Your task to perform on an android device: Look up the new steph curry shoes Image 0: 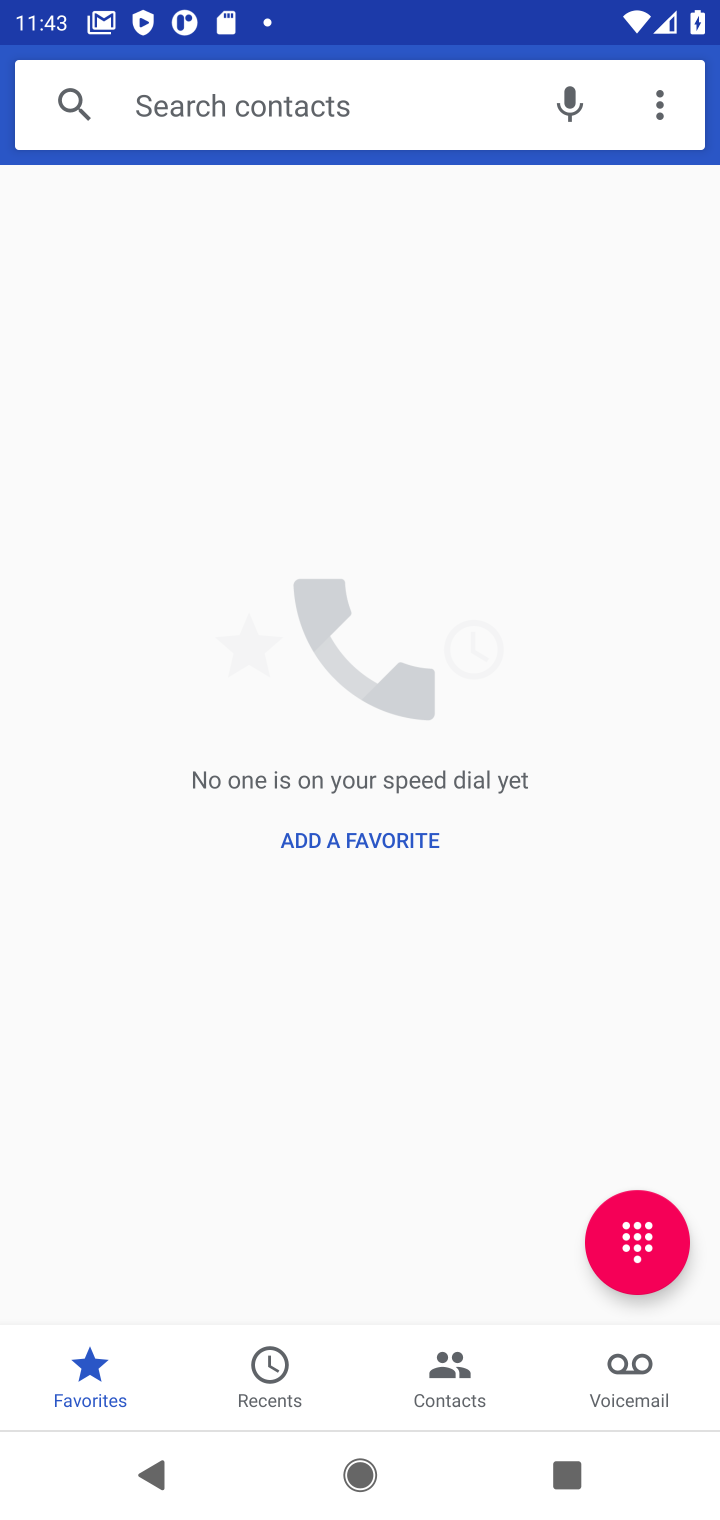
Step 0: press home button
Your task to perform on an android device: Look up the new steph curry shoes Image 1: 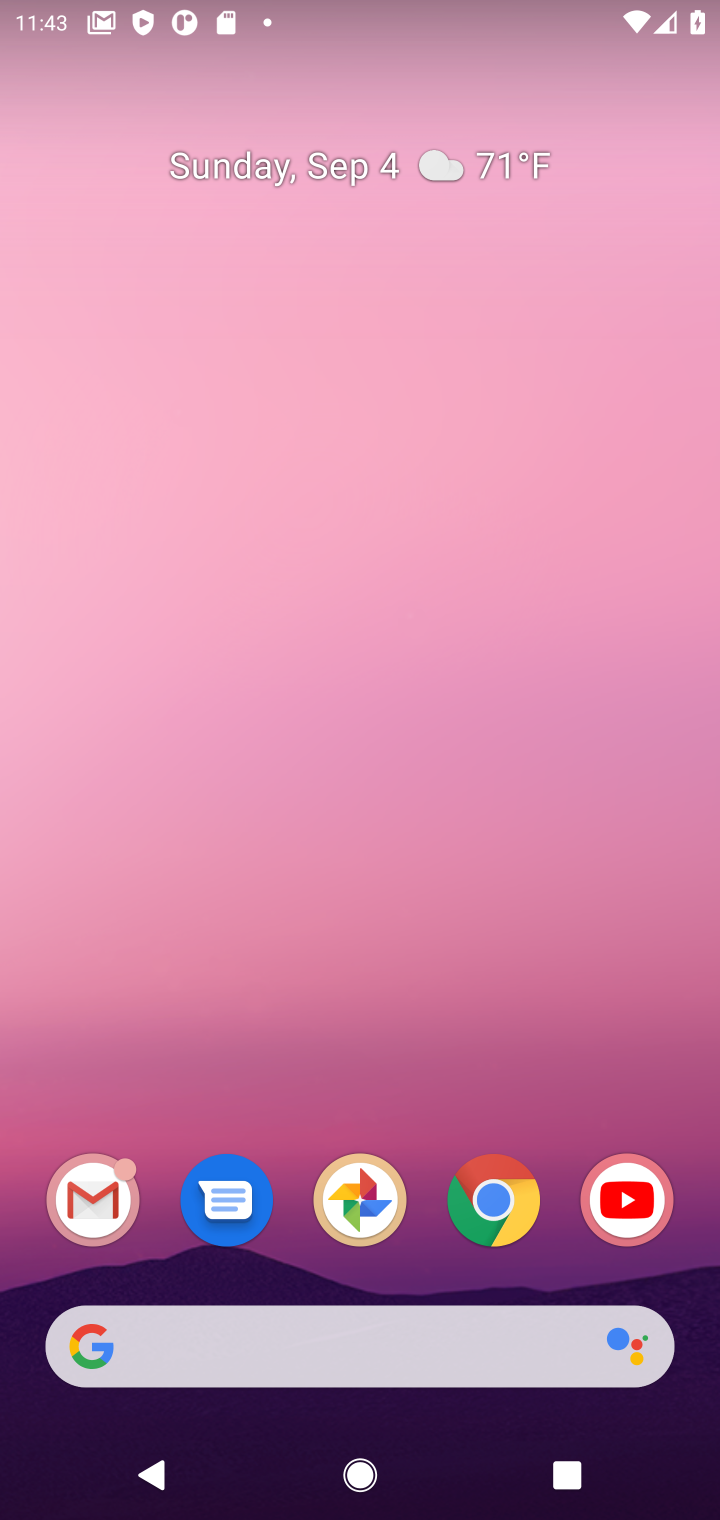
Step 1: click (525, 1197)
Your task to perform on an android device: Look up the new steph curry shoes Image 2: 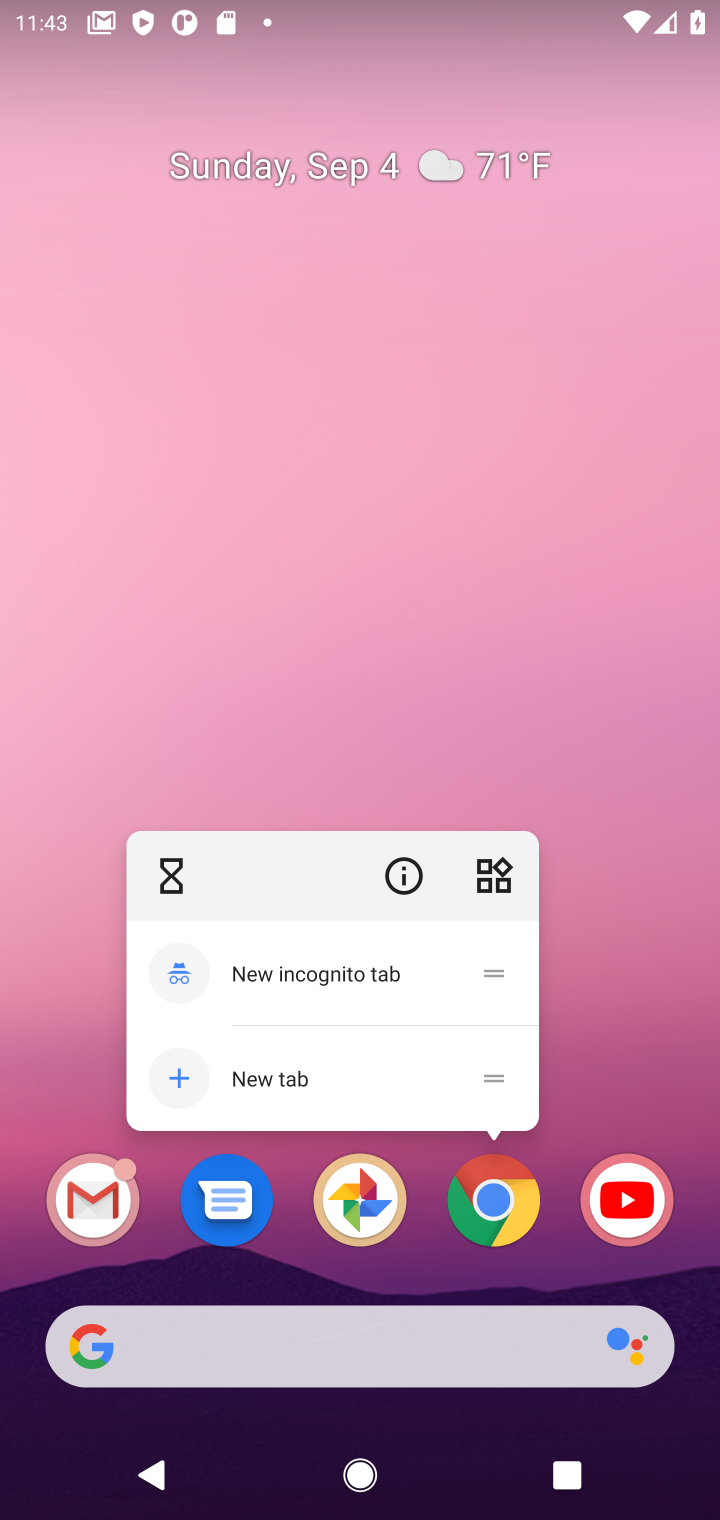
Step 2: click (497, 1203)
Your task to perform on an android device: Look up the new steph curry shoes Image 3: 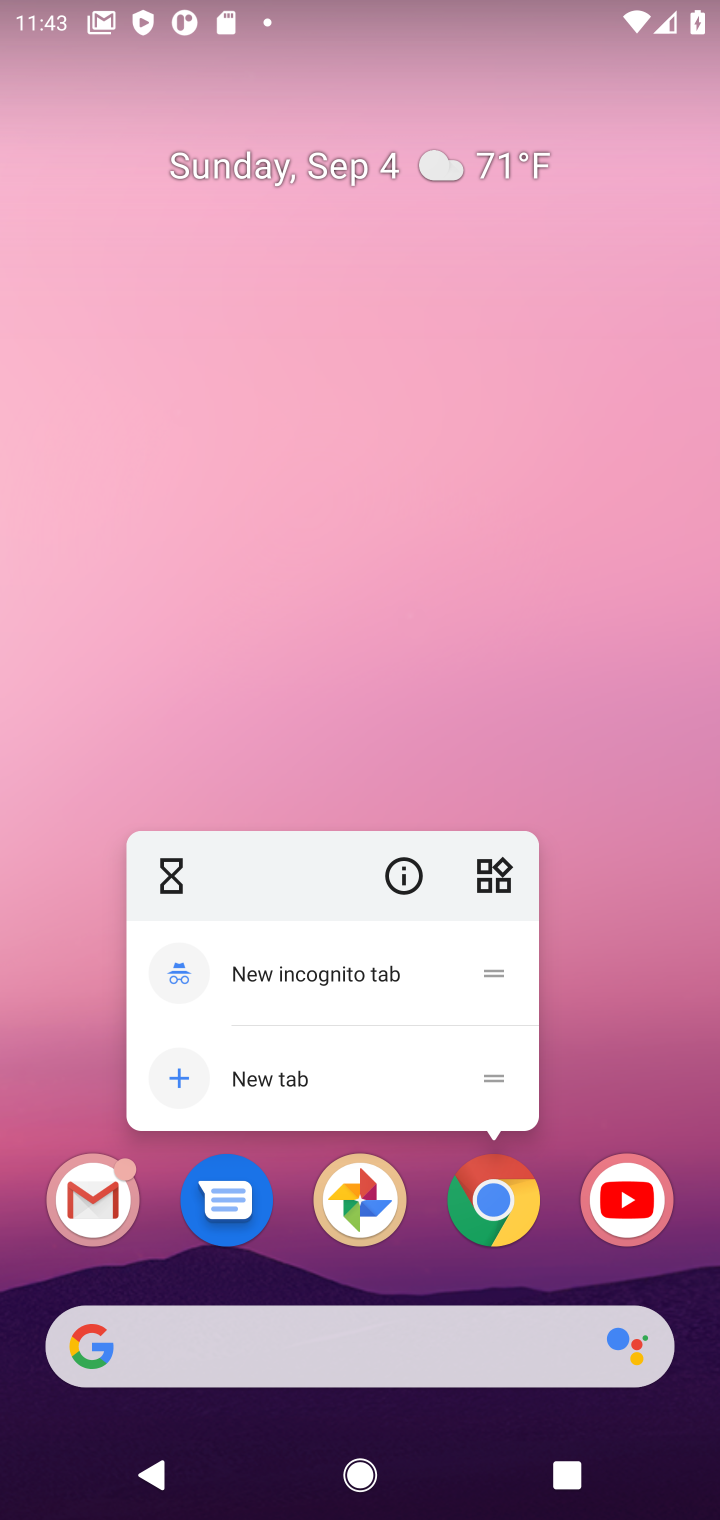
Step 3: click (505, 1210)
Your task to perform on an android device: Look up the new steph curry shoes Image 4: 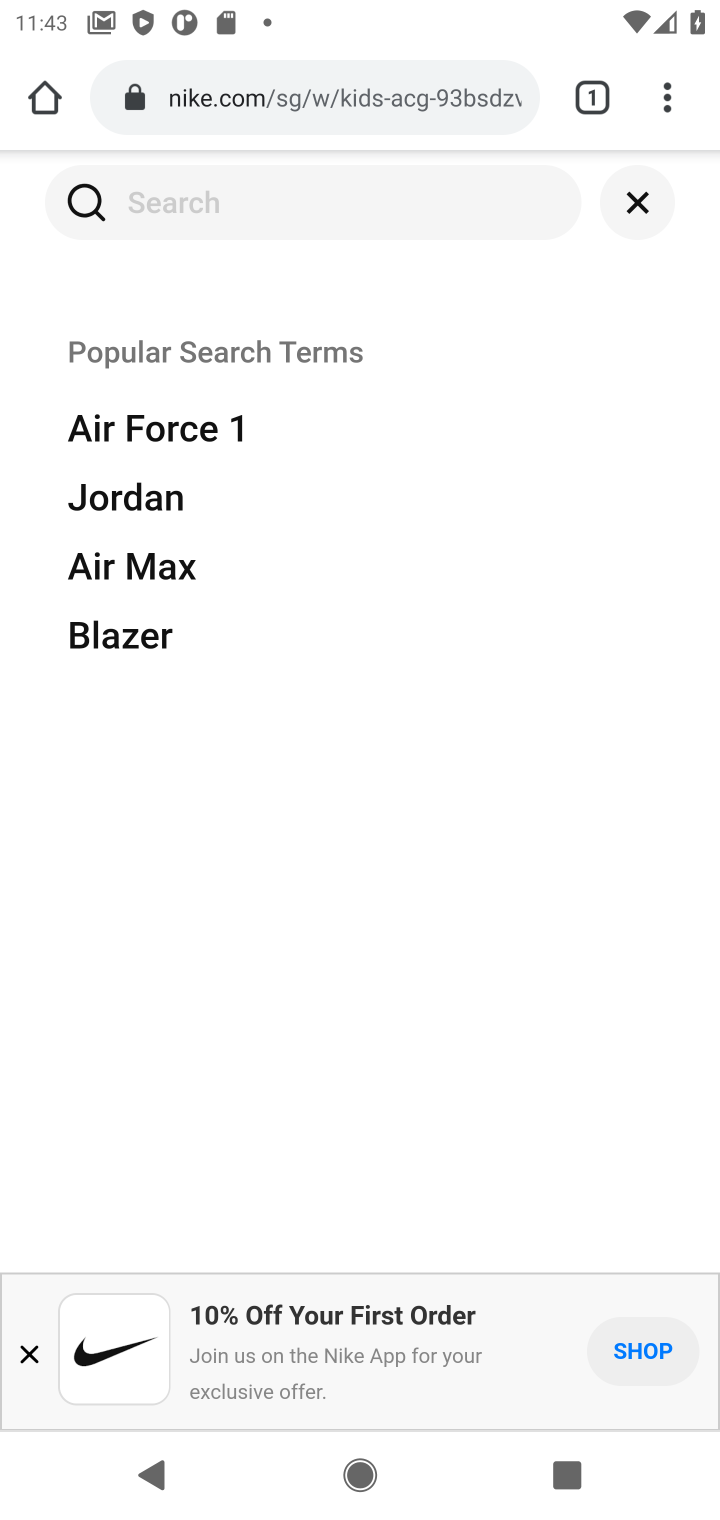
Step 4: click (459, 89)
Your task to perform on an android device: Look up the new steph curry shoes Image 5: 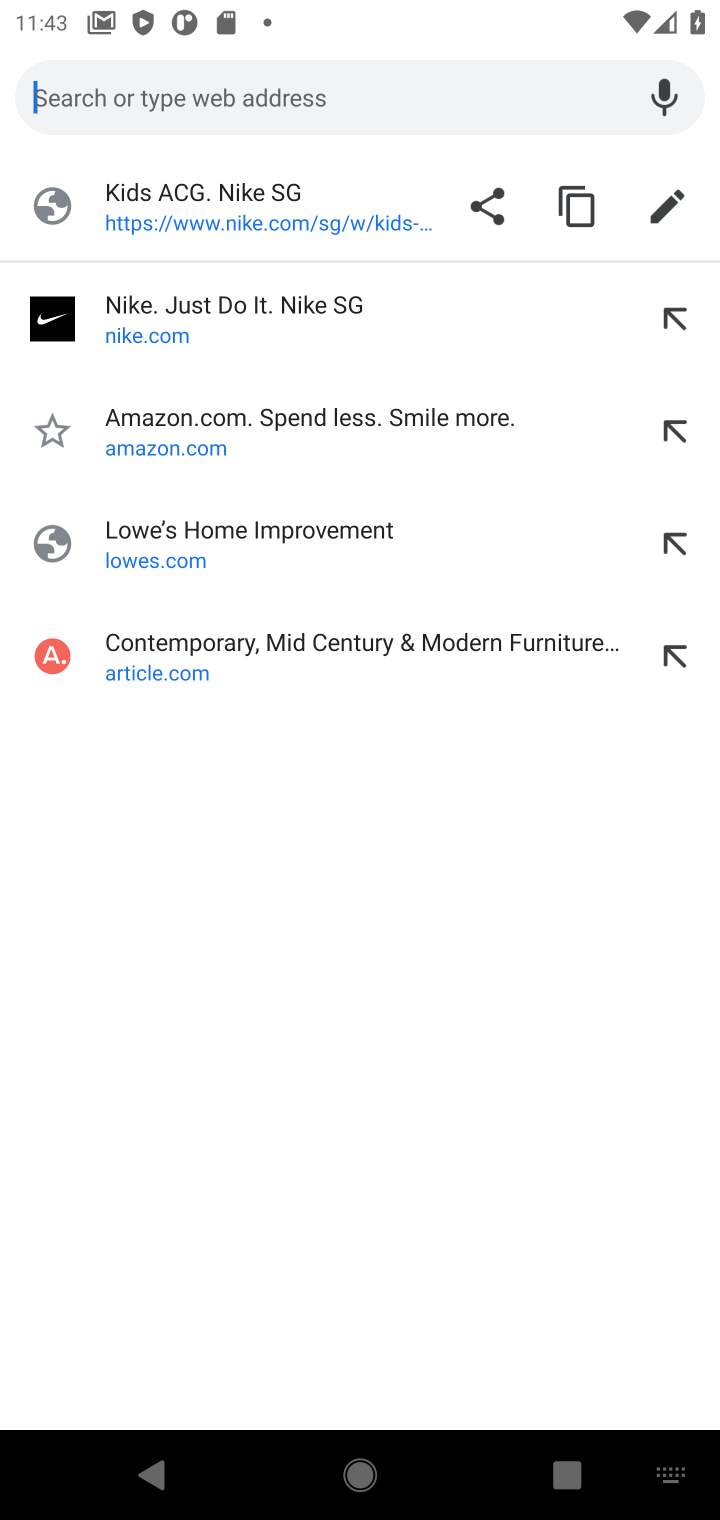
Step 5: type "new steph curry shoeds"
Your task to perform on an android device: Look up the new steph curry shoes Image 6: 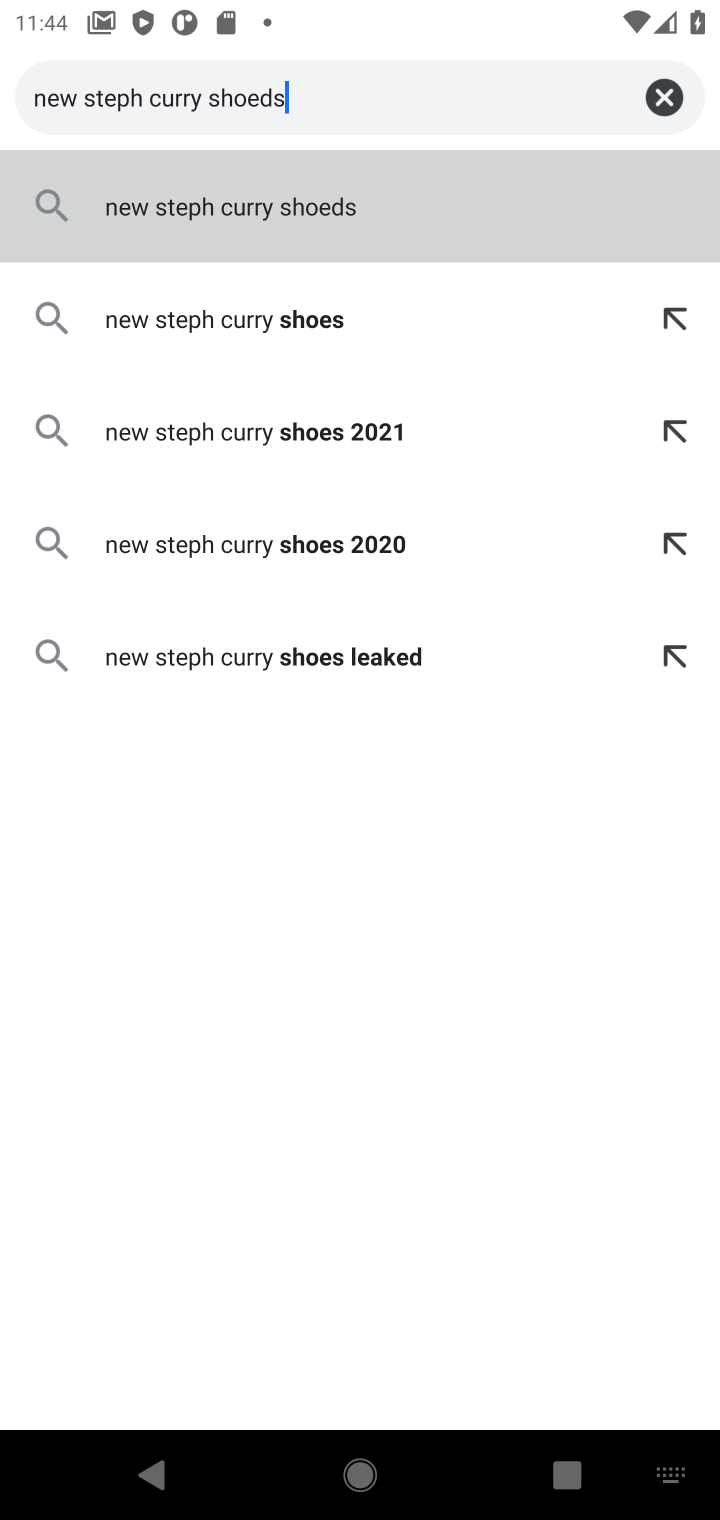
Step 6: click (685, 317)
Your task to perform on an android device: Look up the new steph curry shoes Image 7: 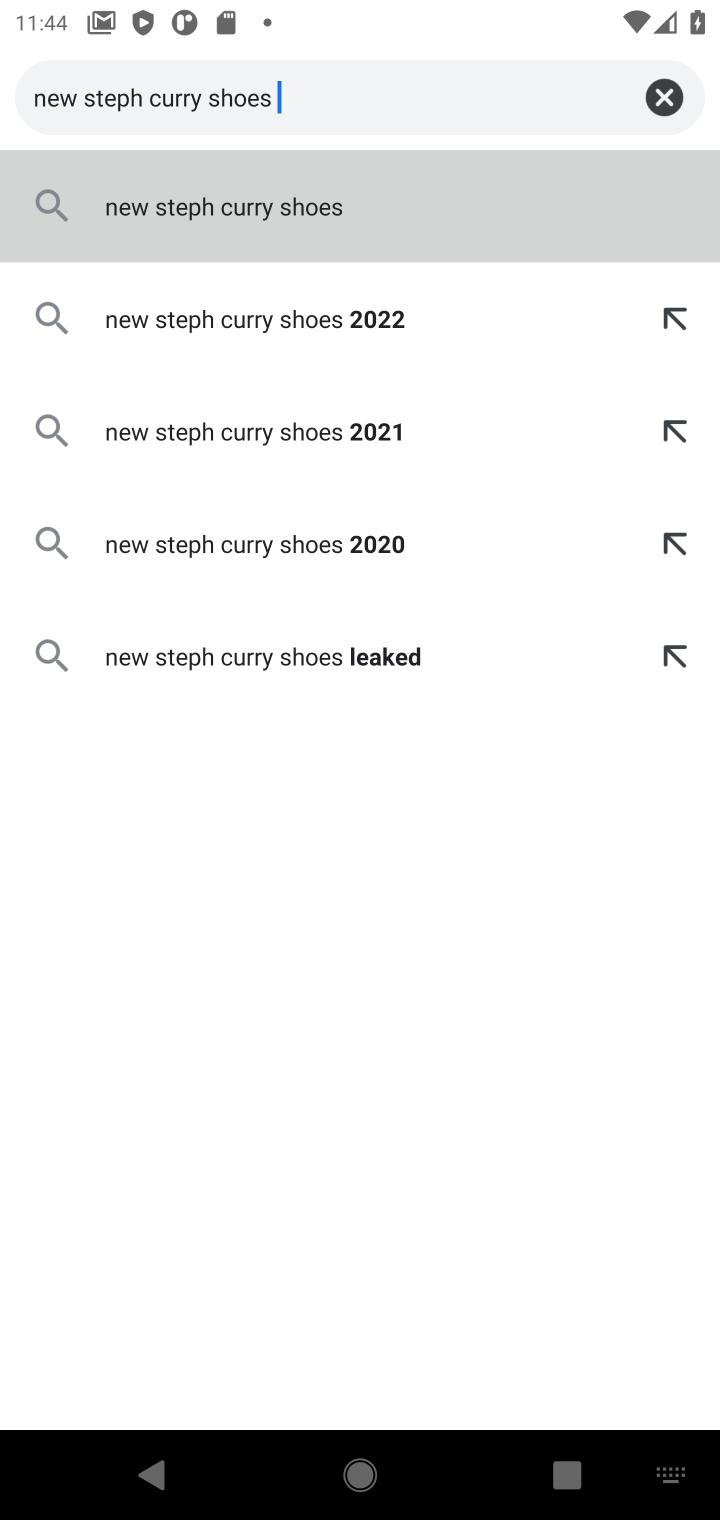
Step 7: click (313, 178)
Your task to perform on an android device: Look up the new steph curry shoes Image 8: 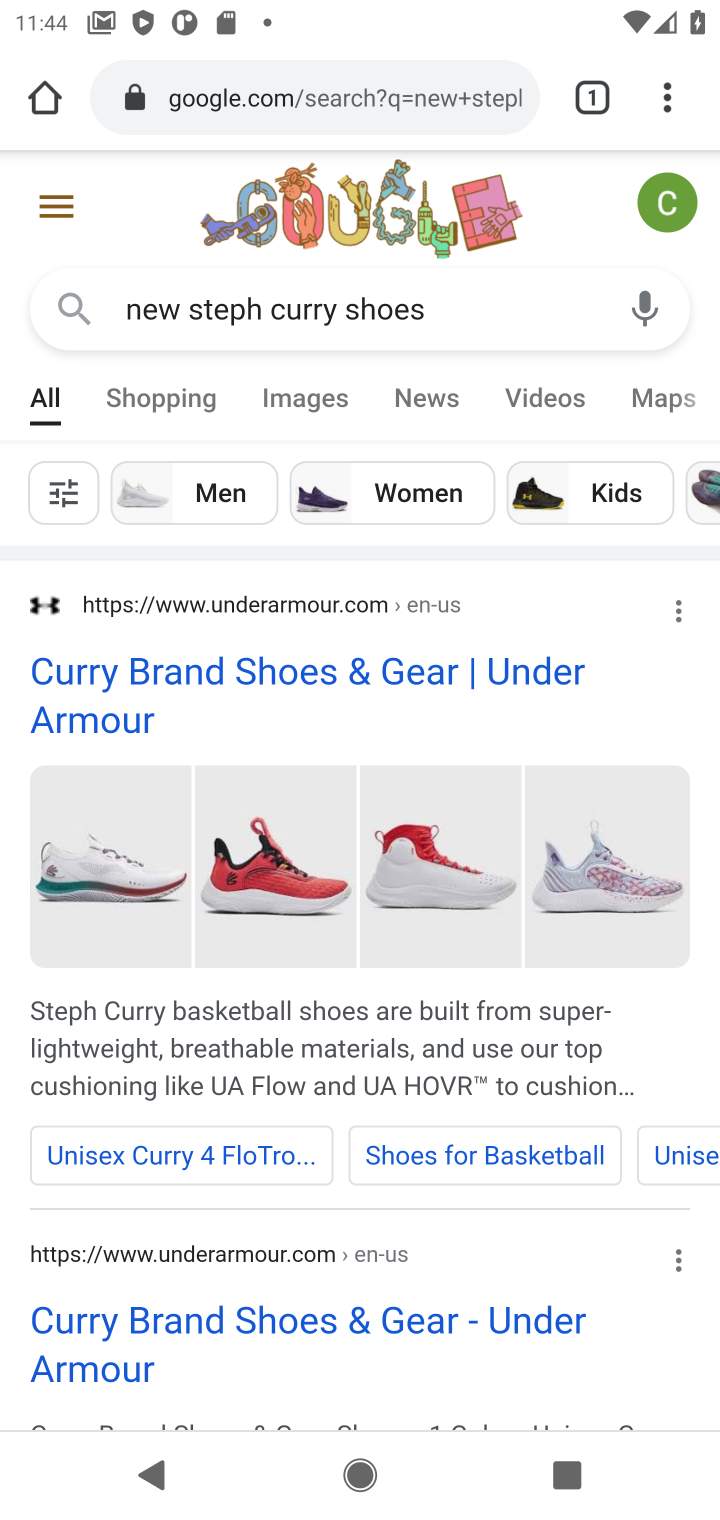
Step 8: task complete